Your task to perform on an android device: open app "Nova Launcher" (install if not already installed) Image 0: 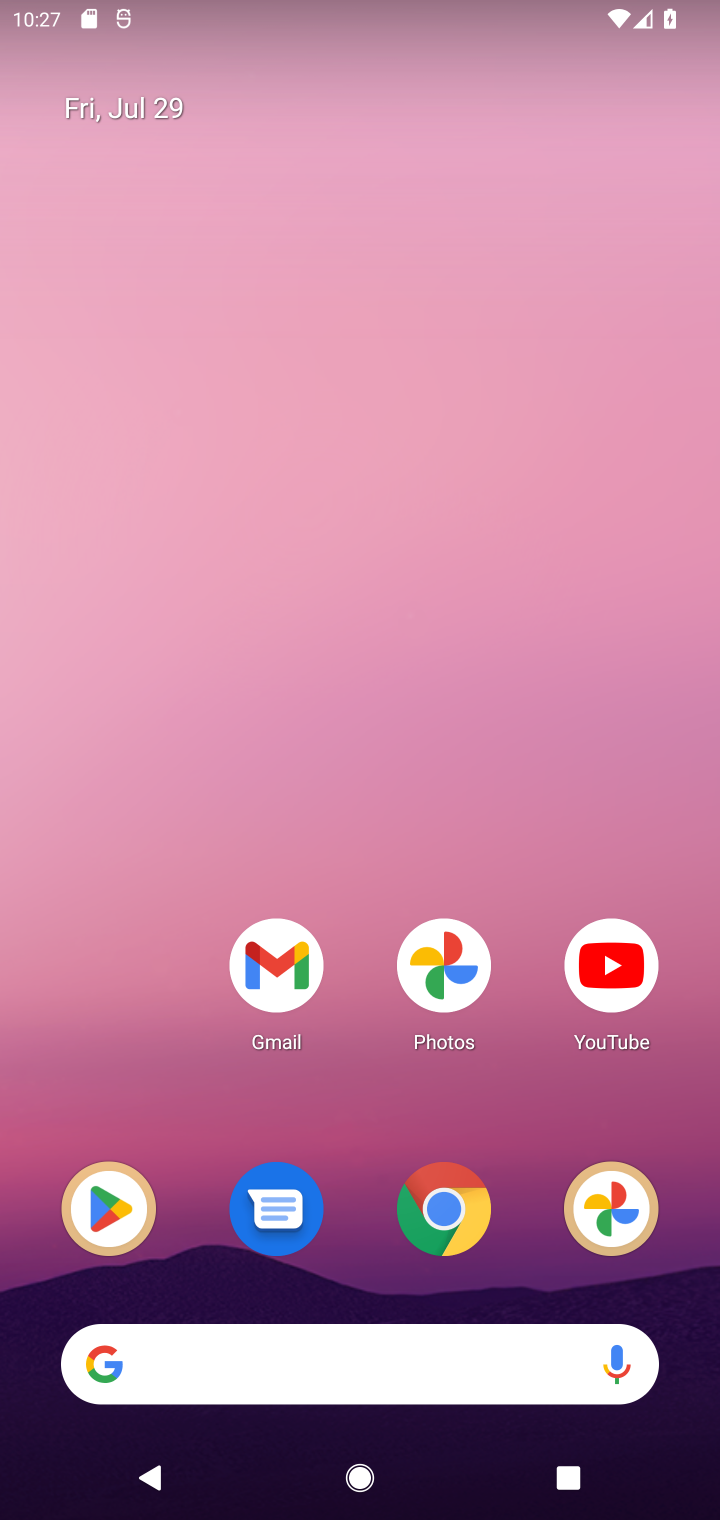
Step 0: drag from (528, 1131) to (564, 161)
Your task to perform on an android device: open app "Nova Launcher" (install if not already installed) Image 1: 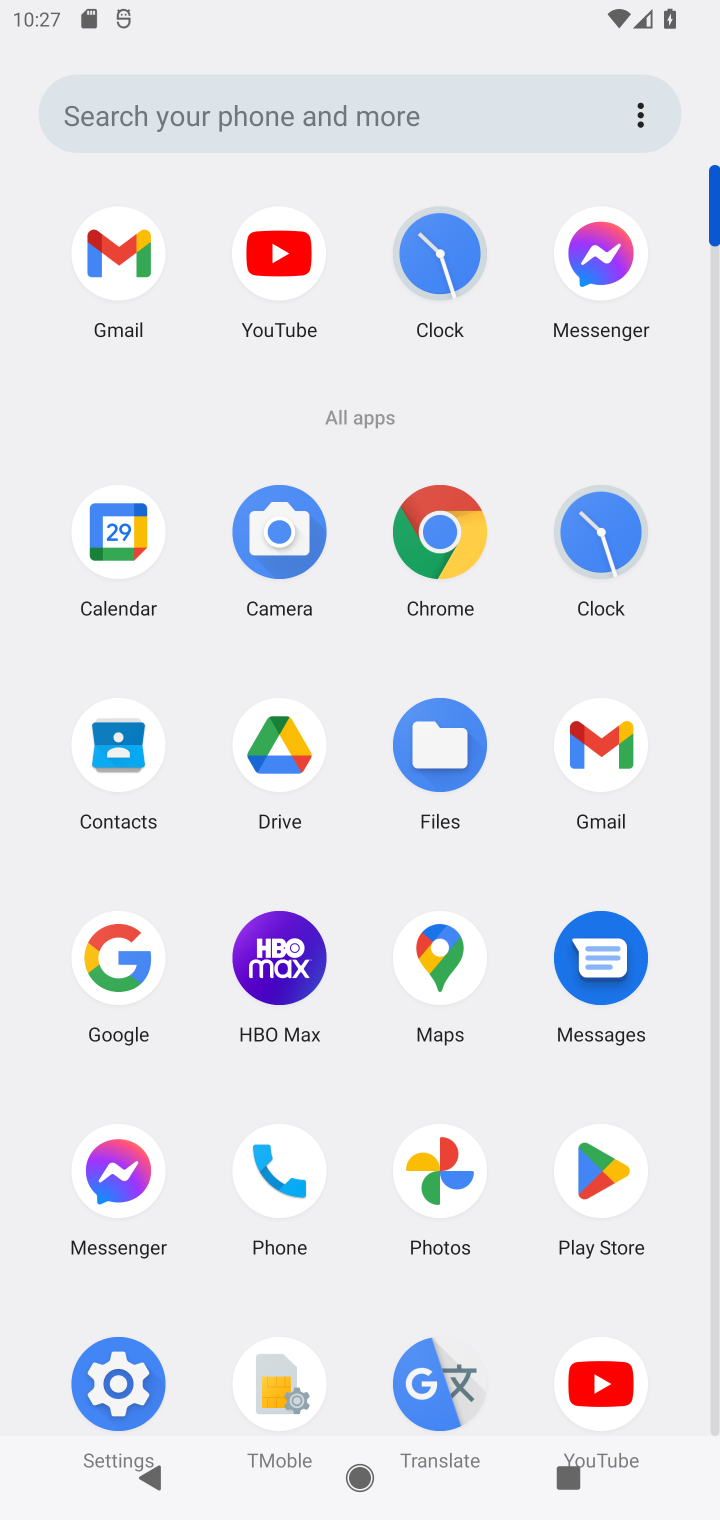
Step 1: click (583, 1191)
Your task to perform on an android device: open app "Nova Launcher" (install if not already installed) Image 2: 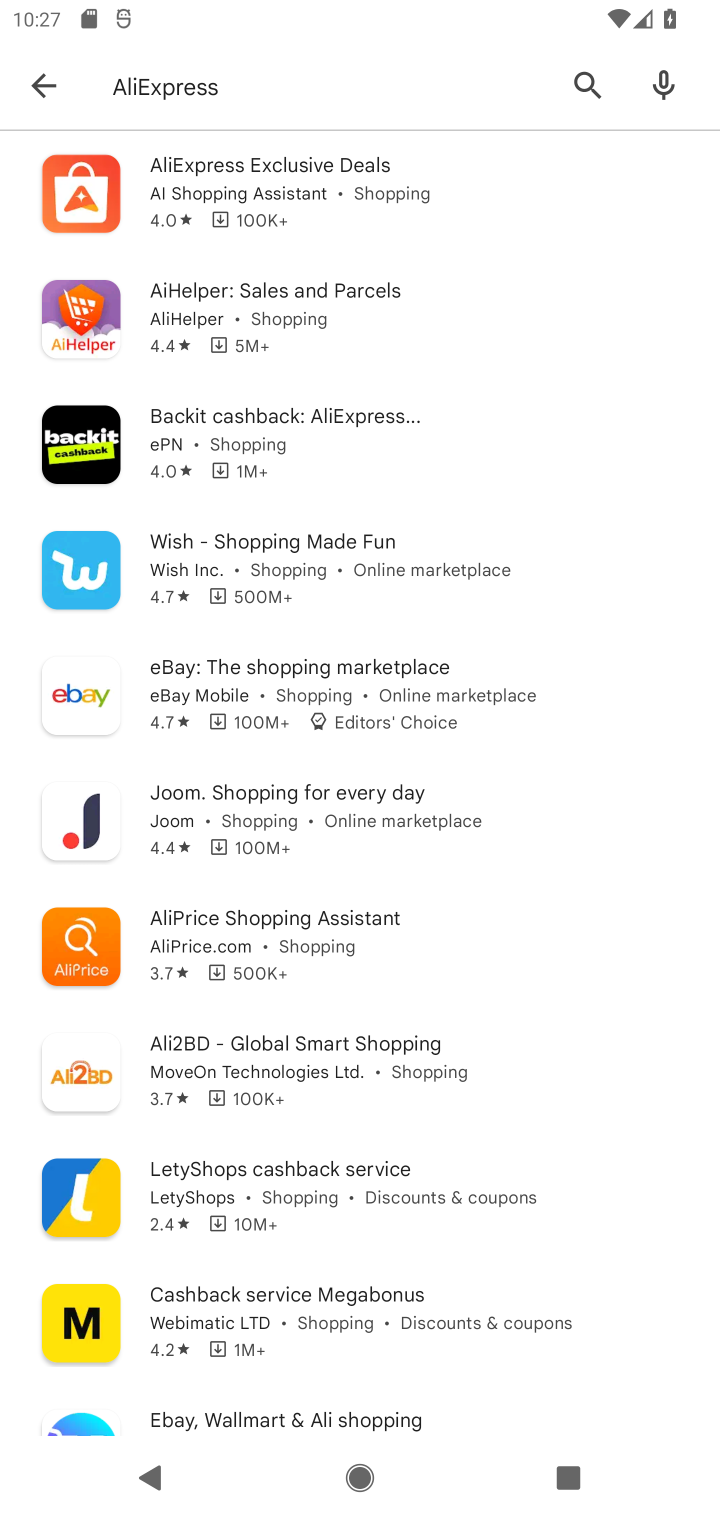
Step 2: click (257, 86)
Your task to perform on an android device: open app "Nova Launcher" (install if not already installed) Image 3: 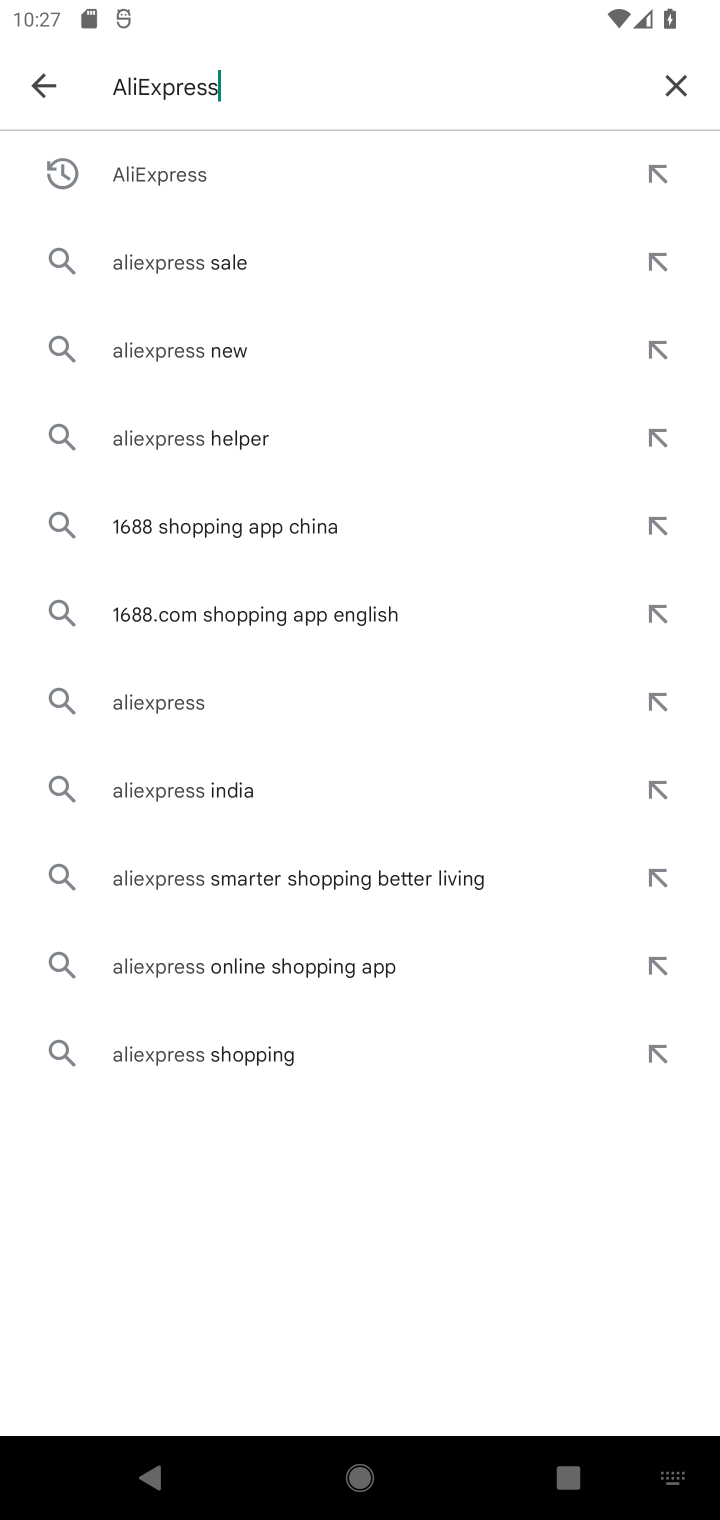
Step 3: click (683, 78)
Your task to perform on an android device: open app "Nova Launcher" (install if not already installed) Image 4: 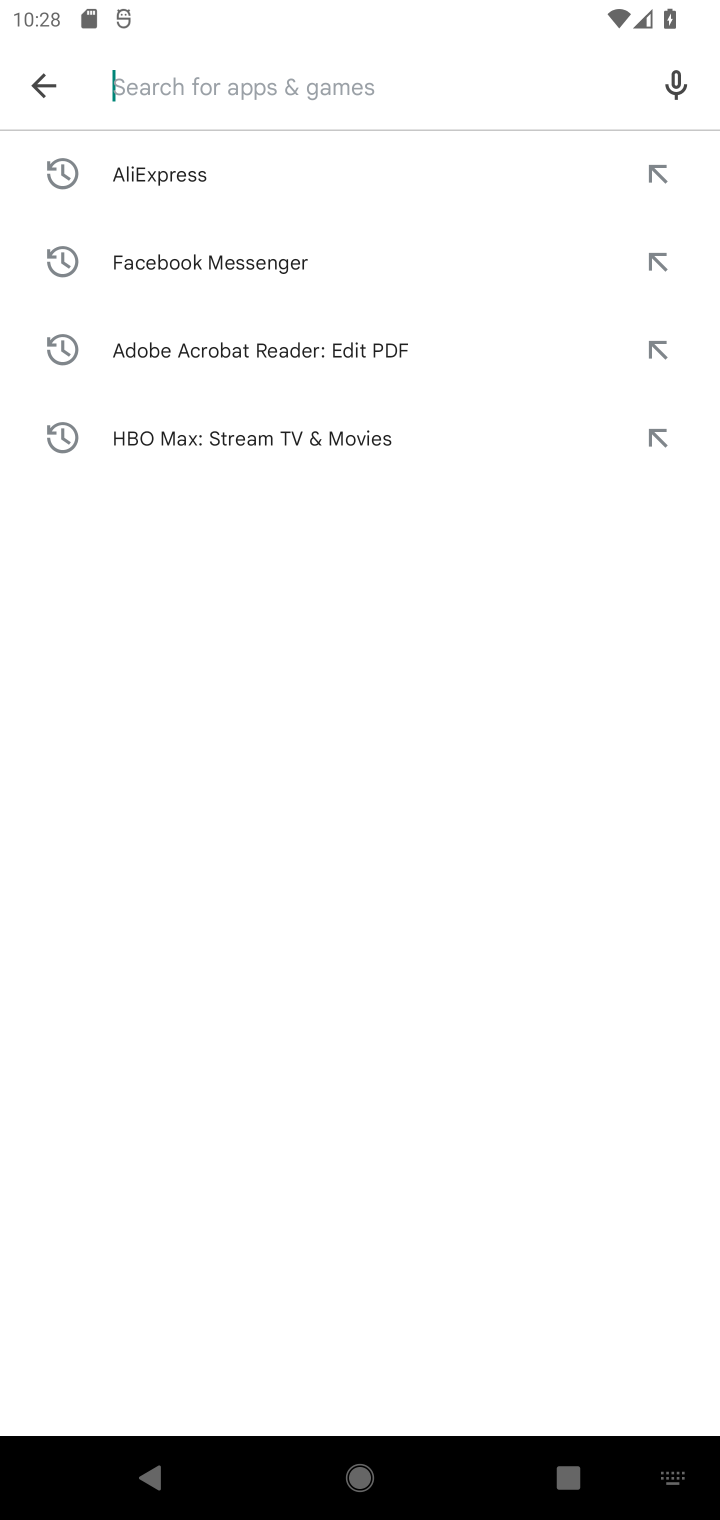
Step 4: type "Nova Launcher"
Your task to perform on an android device: open app "Nova Launcher" (install if not already installed) Image 5: 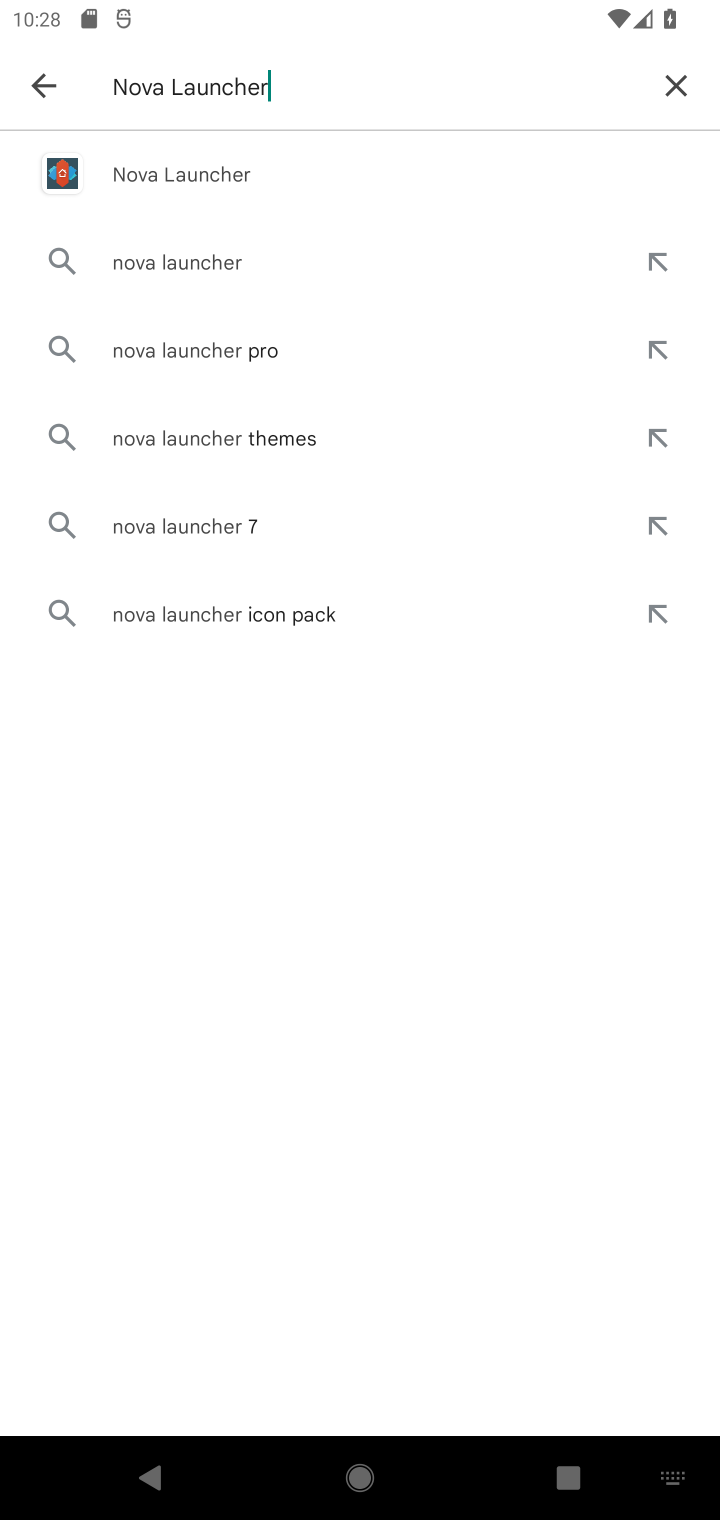
Step 5: press enter
Your task to perform on an android device: open app "Nova Launcher" (install if not already installed) Image 6: 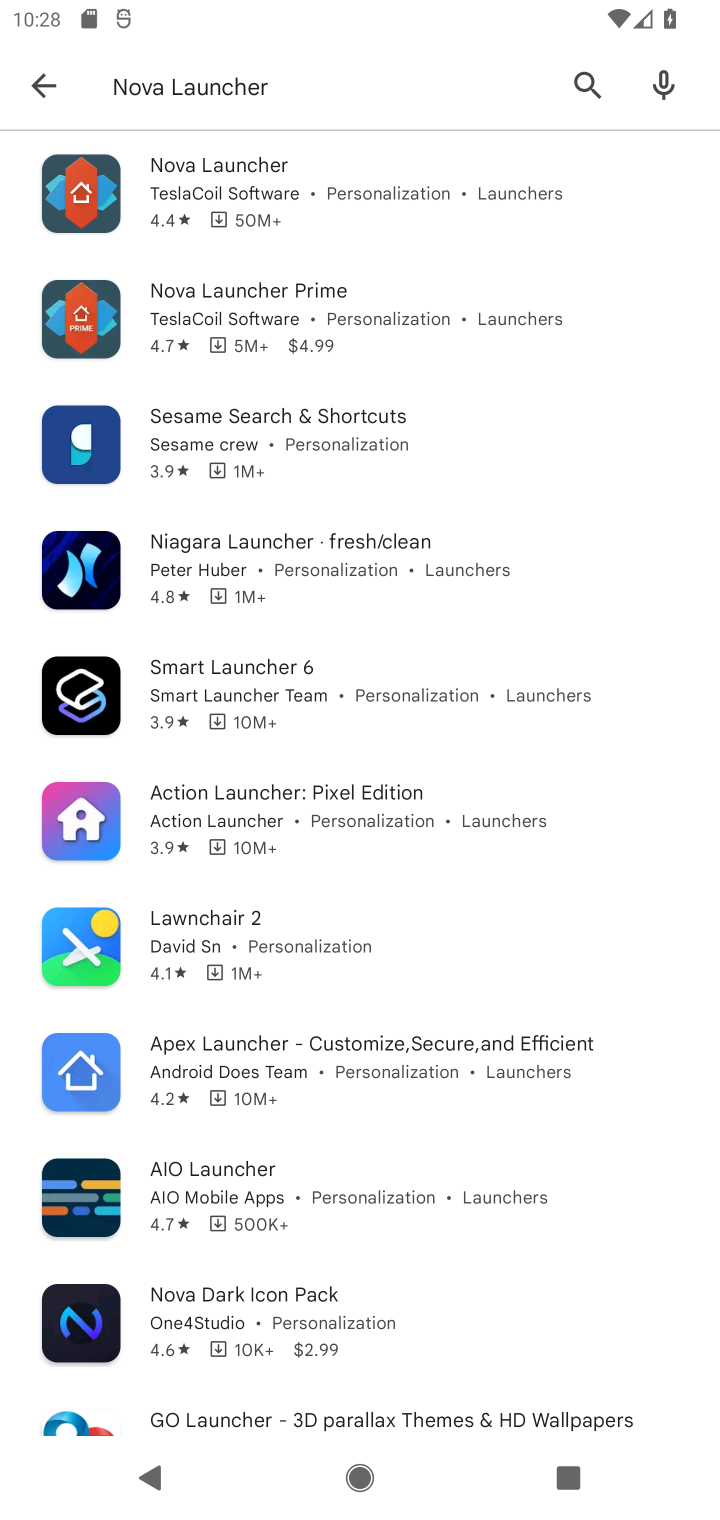
Step 6: click (231, 201)
Your task to perform on an android device: open app "Nova Launcher" (install if not already installed) Image 7: 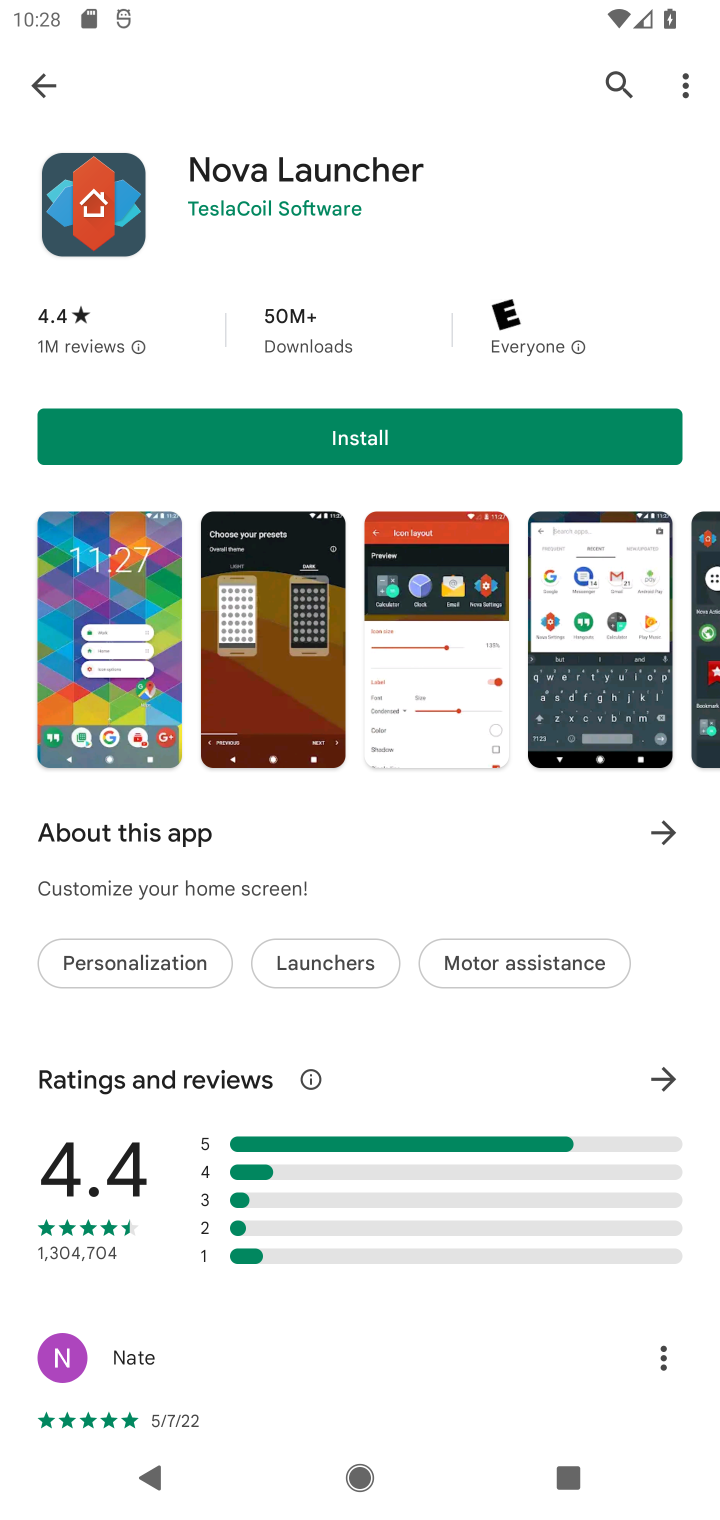
Step 7: click (422, 448)
Your task to perform on an android device: open app "Nova Launcher" (install if not already installed) Image 8: 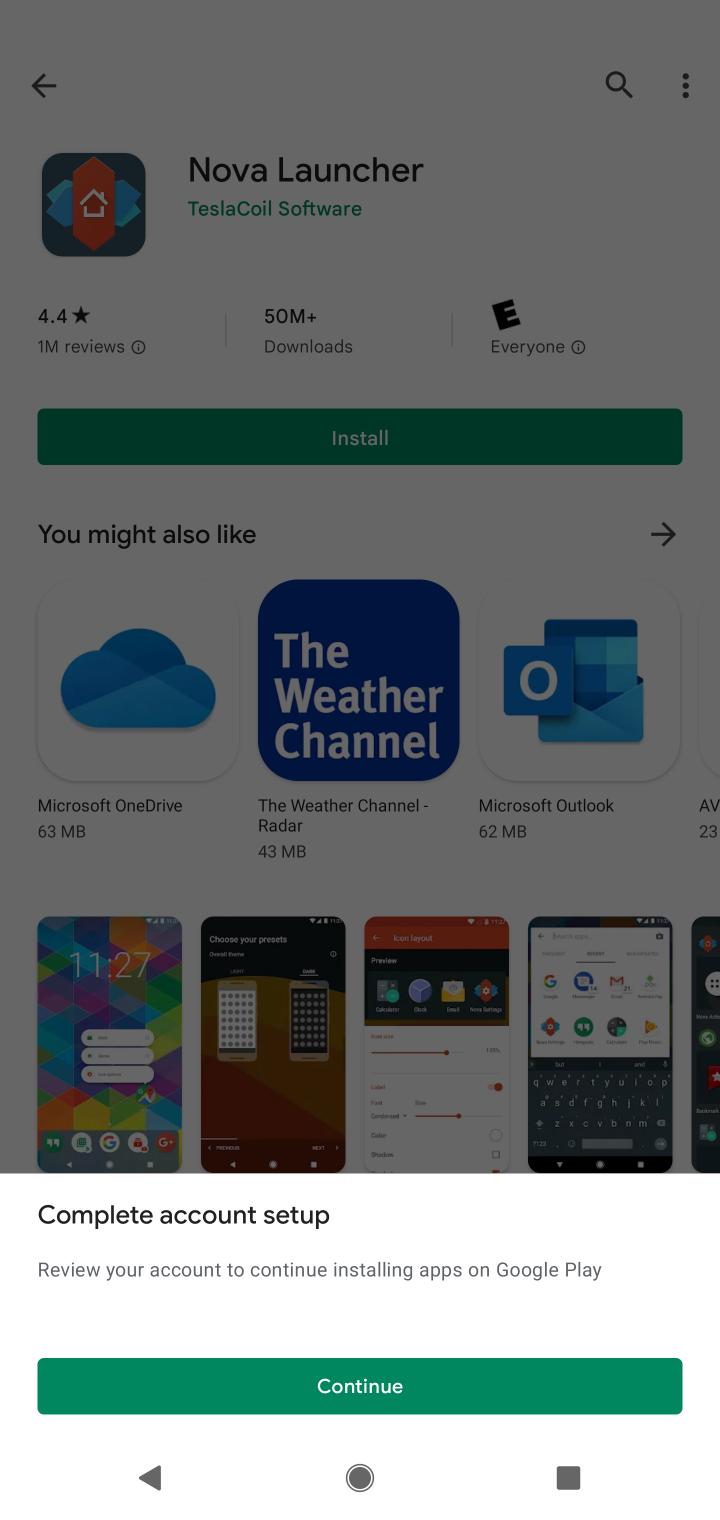
Step 8: click (464, 1381)
Your task to perform on an android device: open app "Nova Launcher" (install if not already installed) Image 9: 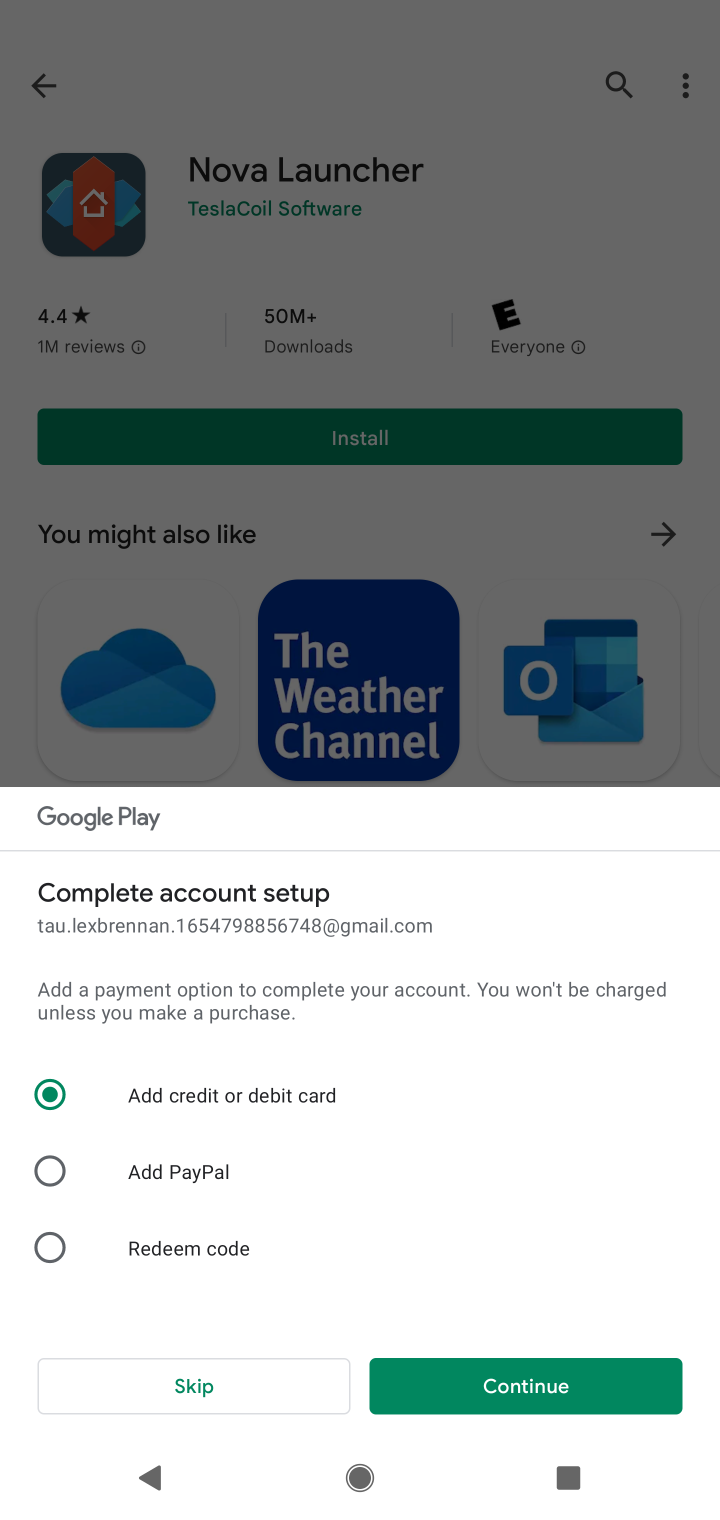
Step 9: click (145, 1369)
Your task to perform on an android device: open app "Nova Launcher" (install if not already installed) Image 10: 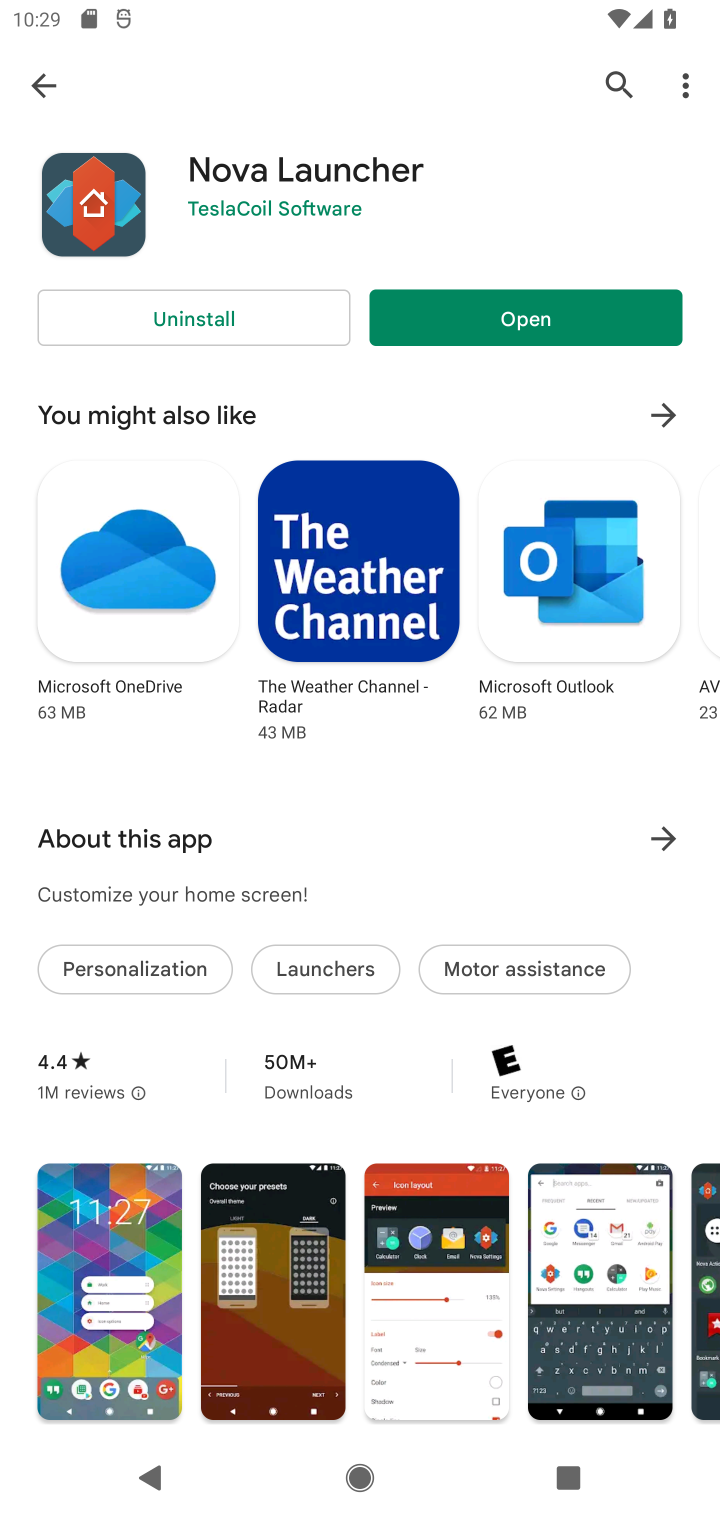
Step 10: click (545, 322)
Your task to perform on an android device: open app "Nova Launcher" (install if not already installed) Image 11: 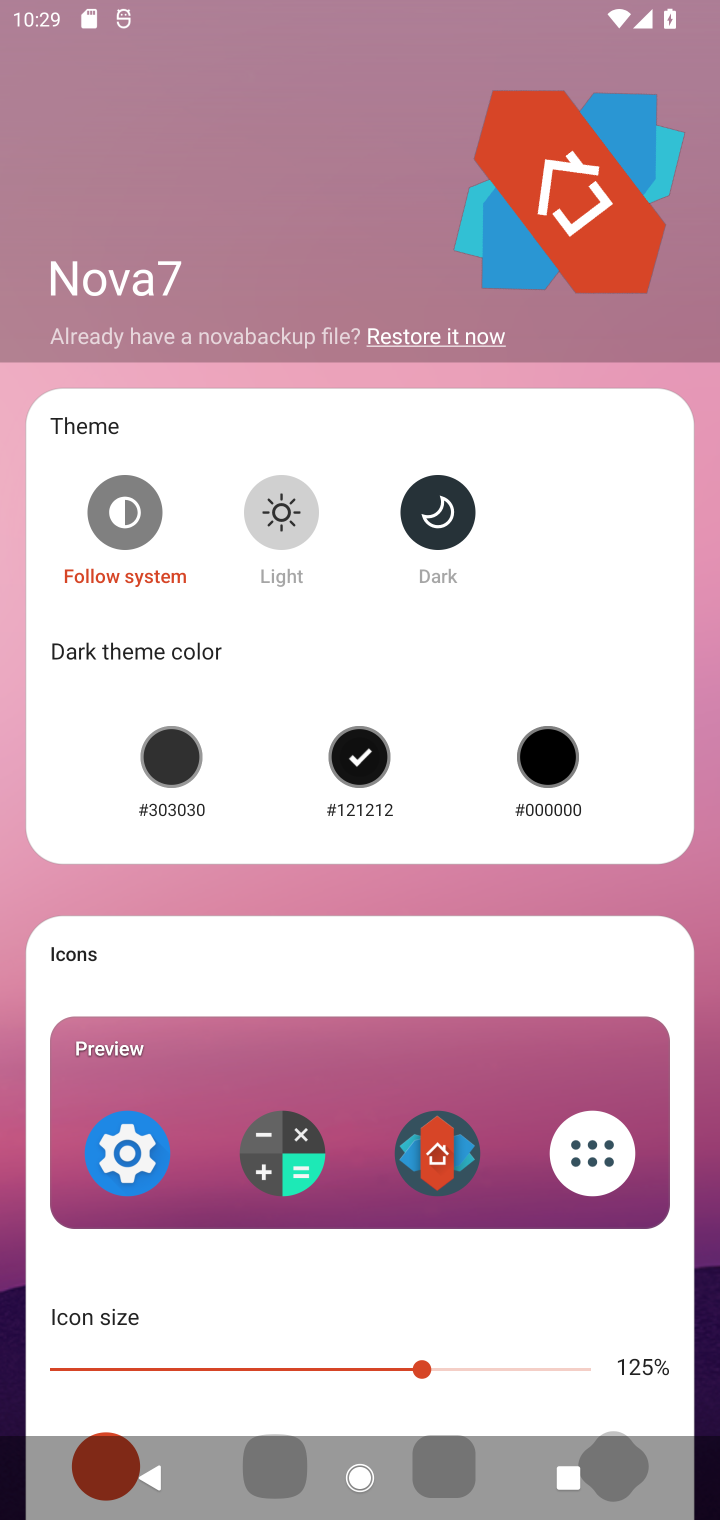
Step 11: task complete